Your task to perform on an android device: Open Reddit.com Image 0: 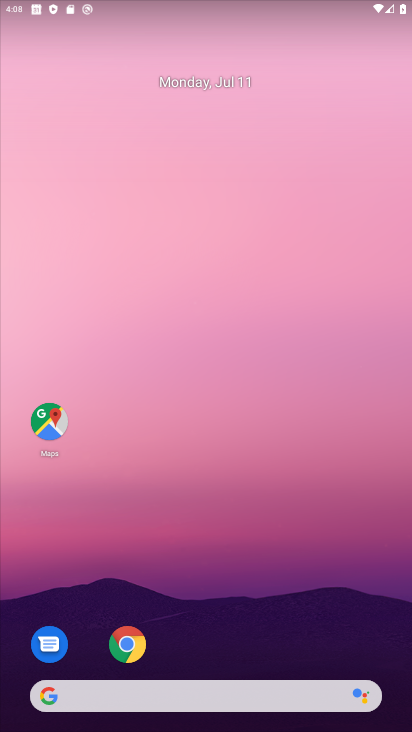
Step 0: click (176, 691)
Your task to perform on an android device: Open Reddit.com Image 1: 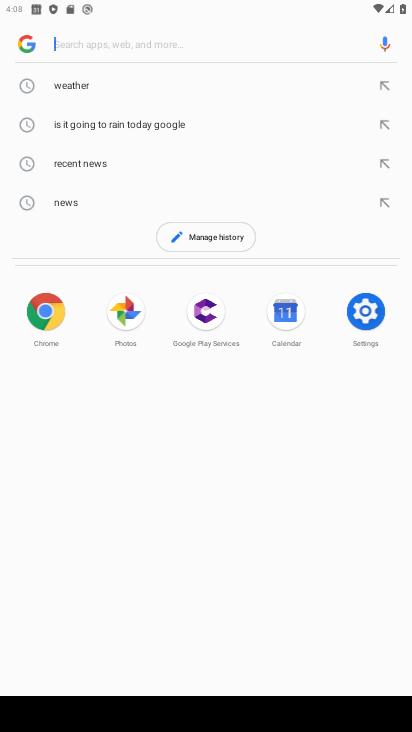
Step 1: type "Reddit.com"
Your task to perform on an android device: Open Reddit.com Image 2: 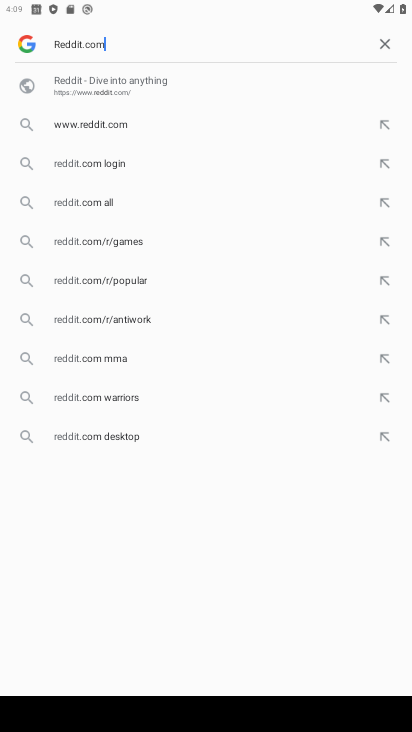
Step 2: type ""
Your task to perform on an android device: Open Reddit.com Image 3: 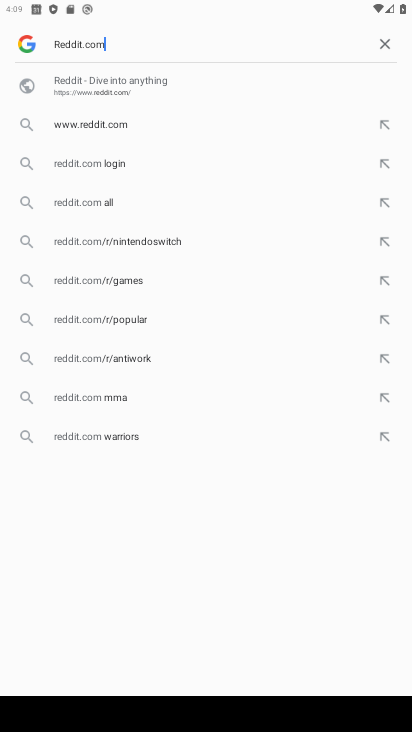
Step 3: click (98, 116)
Your task to perform on an android device: Open Reddit.com Image 4: 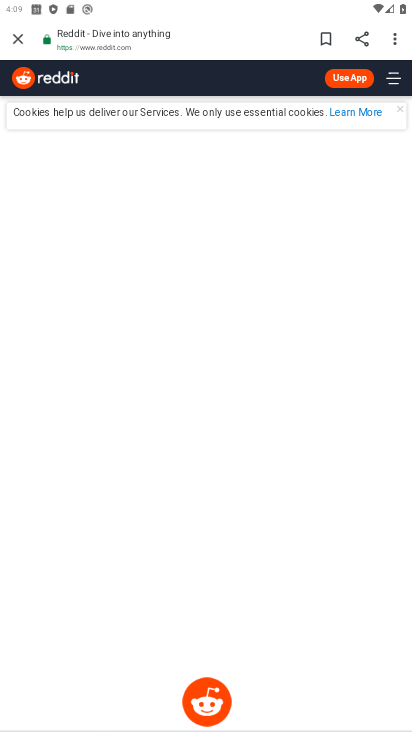
Step 4: task complete